Your task to perform on an android device: Search for seafood restaurants on Google Maps Image 0: 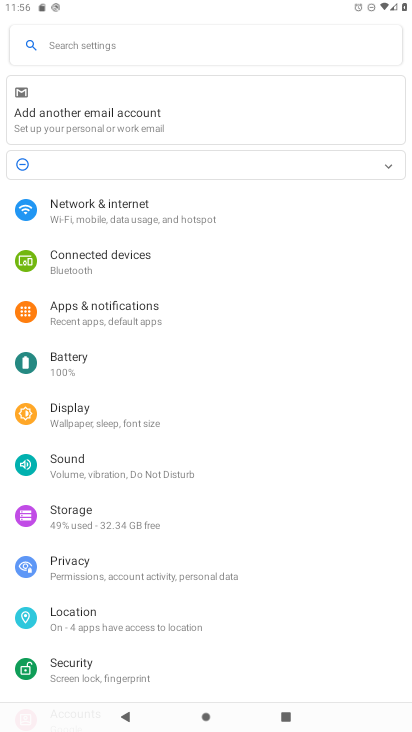
Step 0: press home button
Your task to perform on an android device: Search for seafood restaurants on Google Maps Image 1: 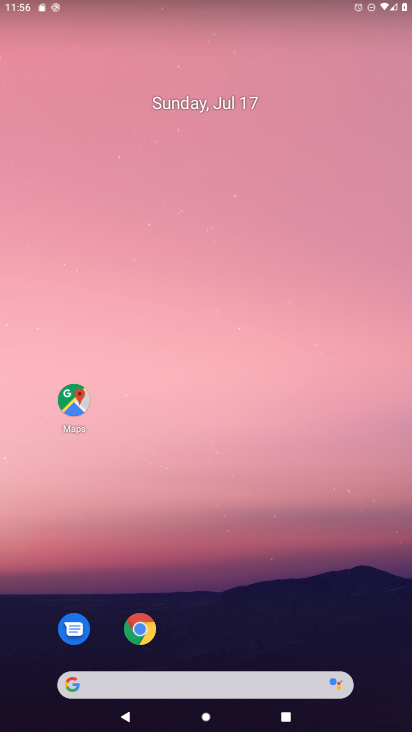
Step 1: click (72, 402)
Your task to perform on an android device: Search for seafood restaurants on Google Maps Image 2: 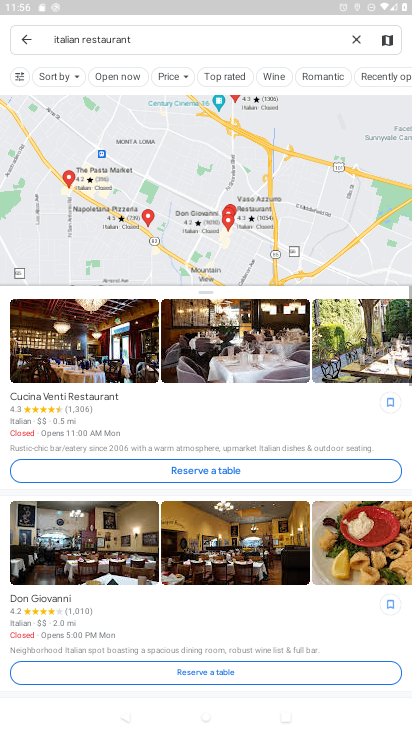
Step 2: click (359, 38)
Your task to perform on an android device: Search for seafood restaurants on Google Maps Image 3: 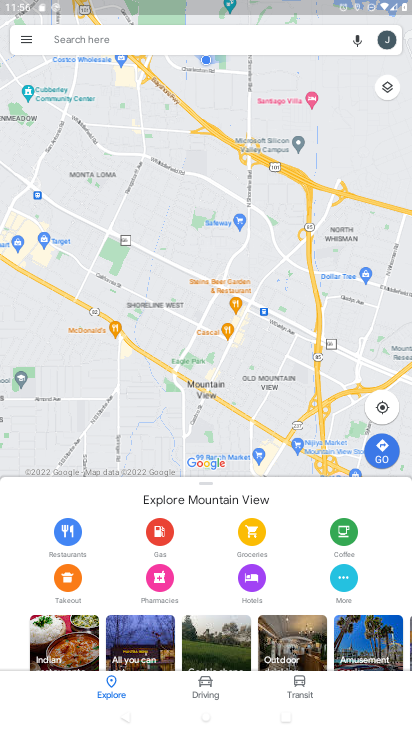
Step 3: click (286, 48)
Your task to perform on an android device: Search for seafood restaurants on Google Maps Image 4: 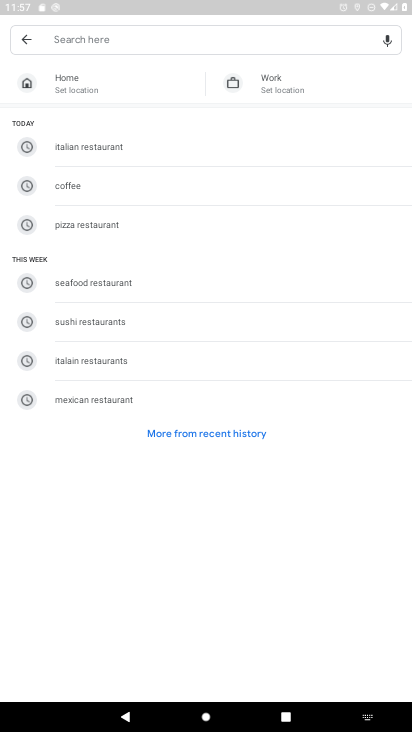
Step 4: type "seafood restaurants"
Your task to perform on an android device: Search for seafood restaurants on Google Maps Image 5: 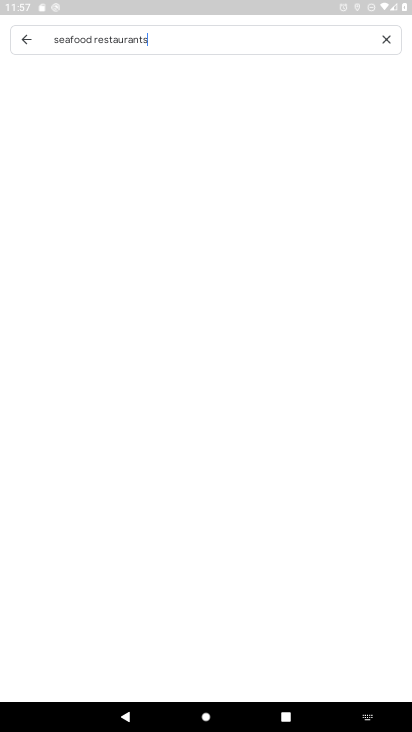
Step 5: type ""
Your task to perform on an android device: Search for seafood restaurants on Google Maps Image 6: 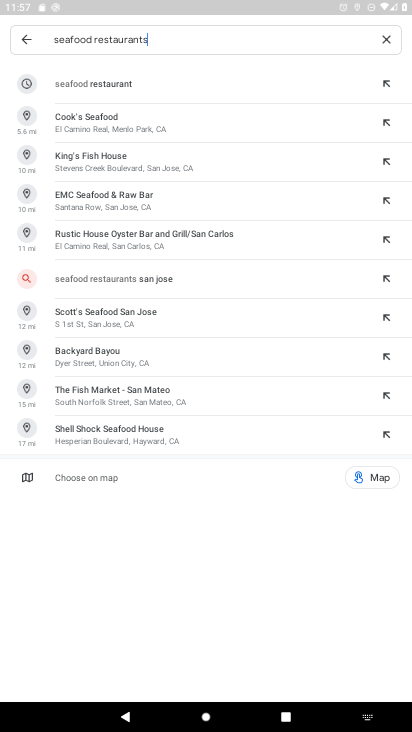
Step 6: click (109, 81)
Your task to perform on an android device: Search for seafood restaurants on Google Maps Image 7: 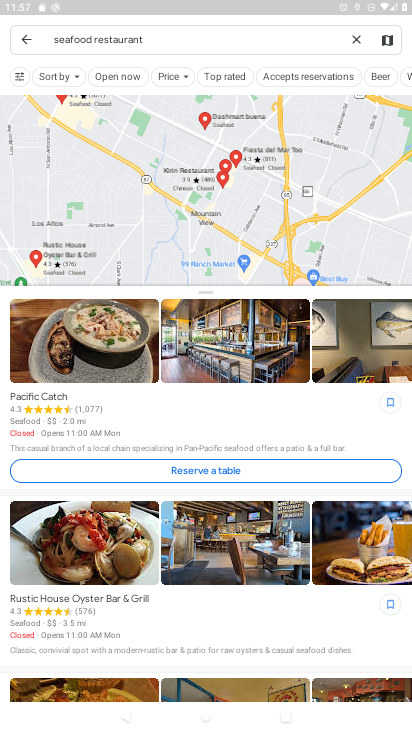
Step 7: task complete